Your task to perform on an android device: change the clock display to analog Image 0: 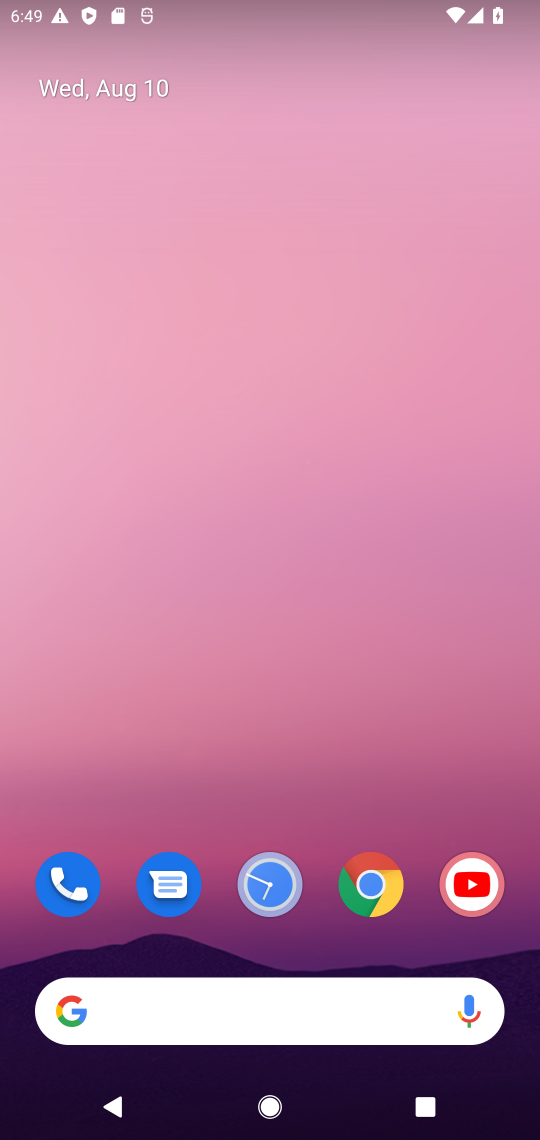
Step 0: click (268, 892)
Your task to perform on an android device: change the clock display to analog Image 1: 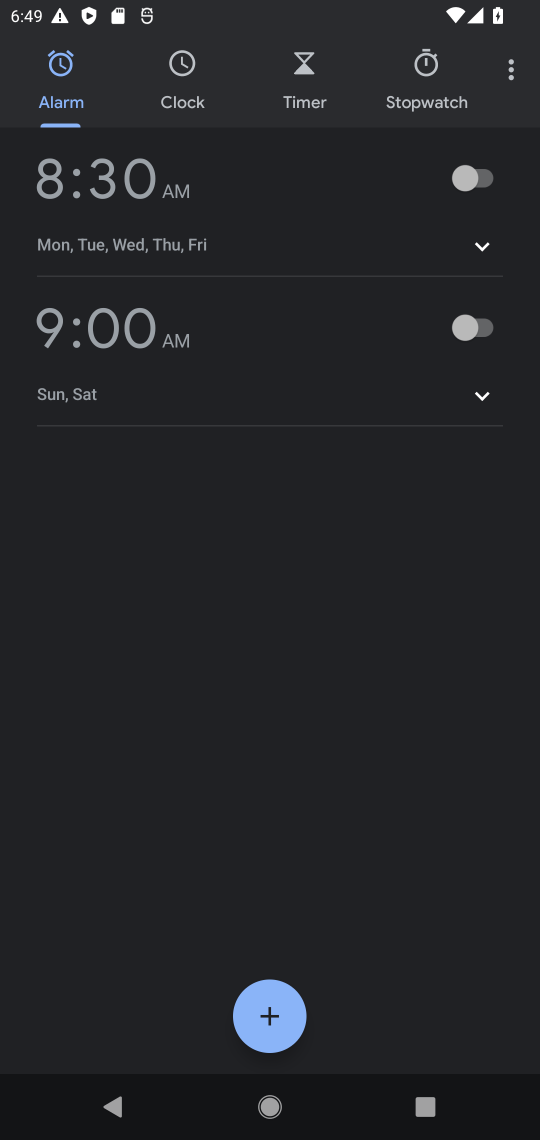
Step 1: click (181, 91)
Your task to perform on an android device: change the clock display to analog Image 2: 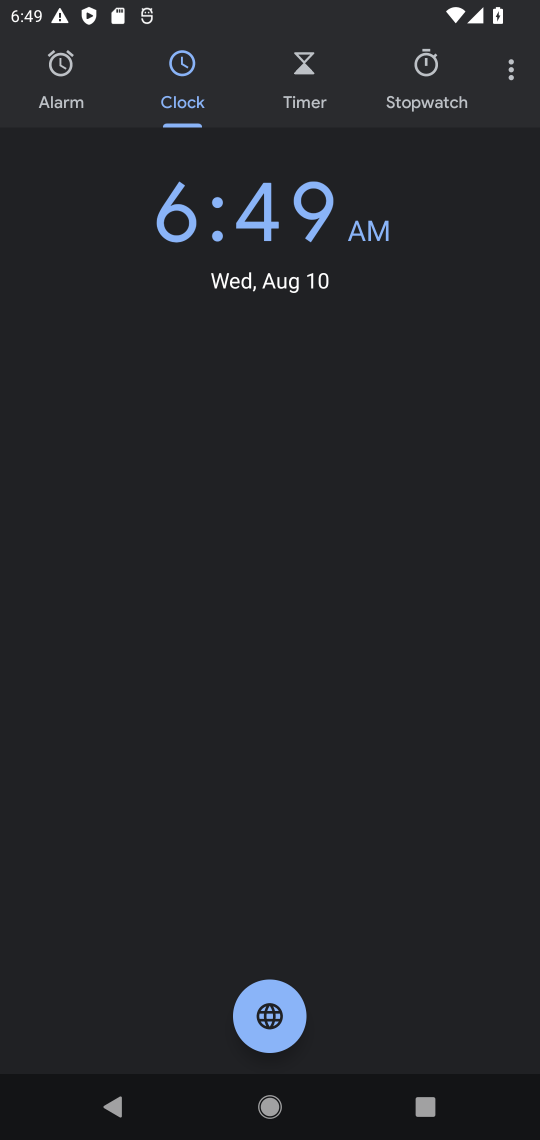
Step 2: click (513, 83)
Your task to perform on an android device: change the clock display to analog Image 3: 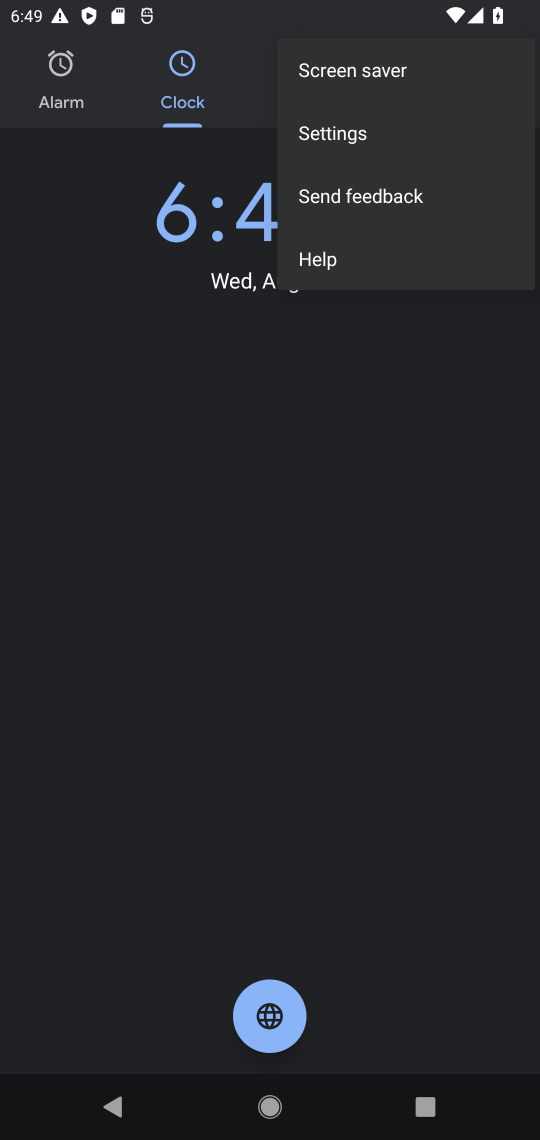
Step 3: click (319, 146)
Your task to perform on an android device: change the clock display to analog Image 4: 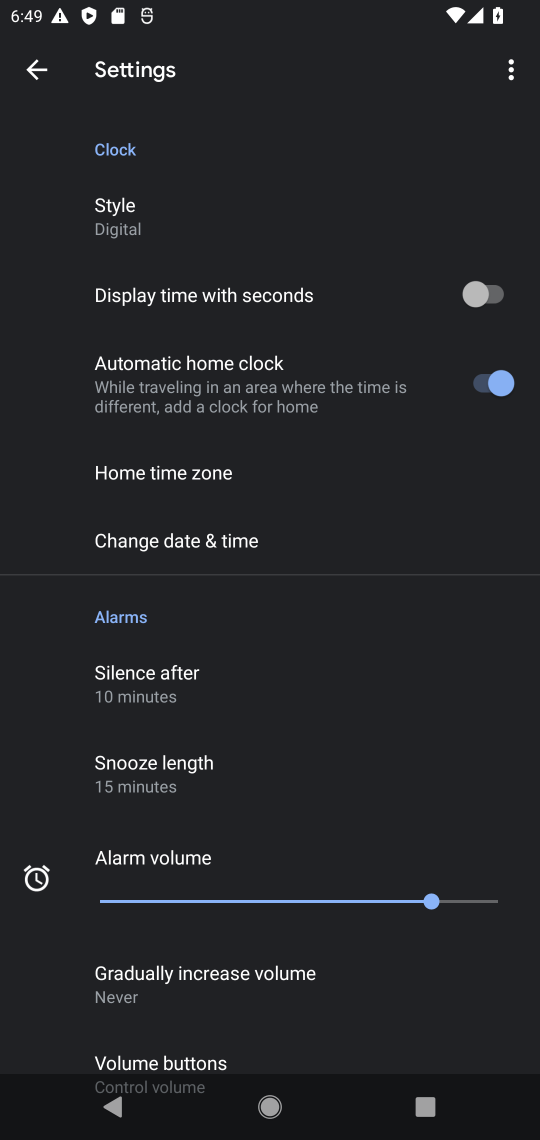
Step 4: click (132, 222)
Your task to perform on an android device: change the clock display to analog Image 5: 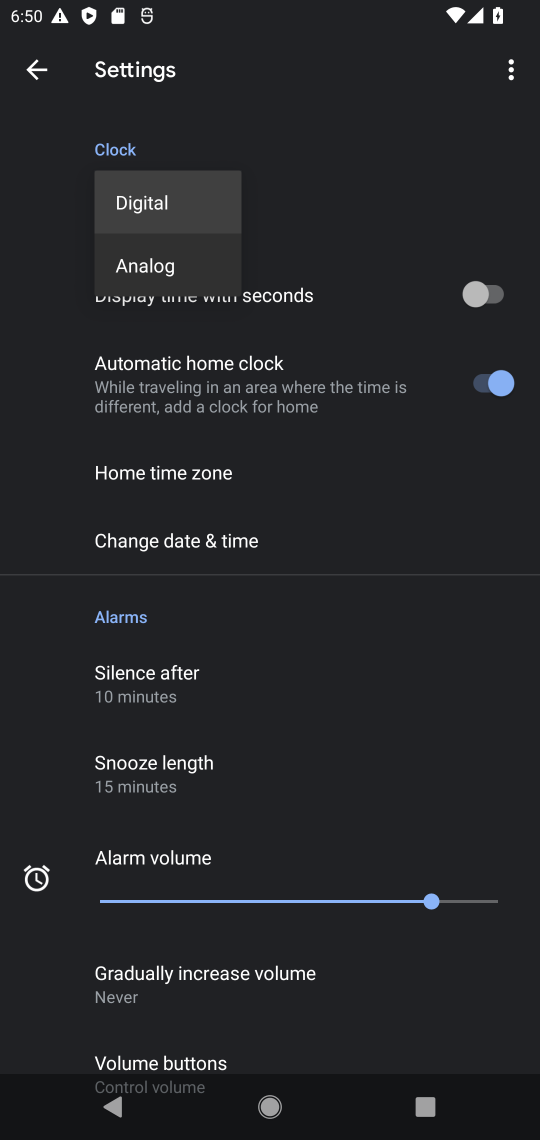
Step 5: click (147, 280)
Your task to perform on an android device: change the clock display to analog Image 6: 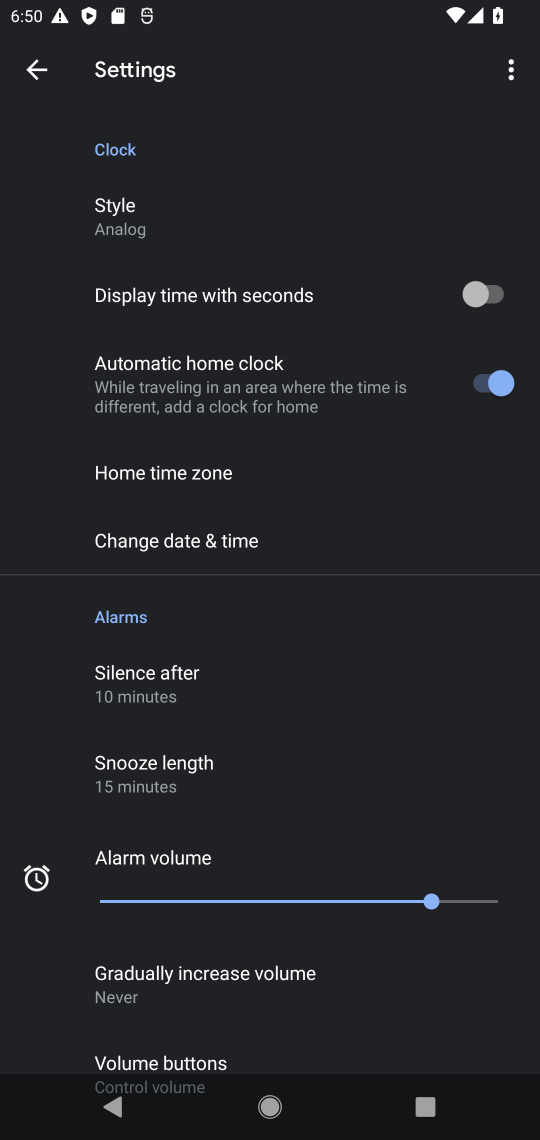
Step 6: task complete